Your task to perform on an android device: Open accessibility settings Image 0: 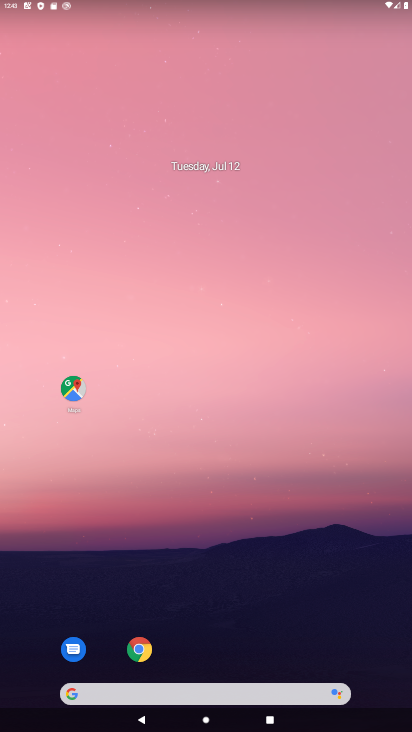
Step 0: drag from (204, 658) to (289, 58)
Your task to perform on an android device: Open accessibility settings Image 1: 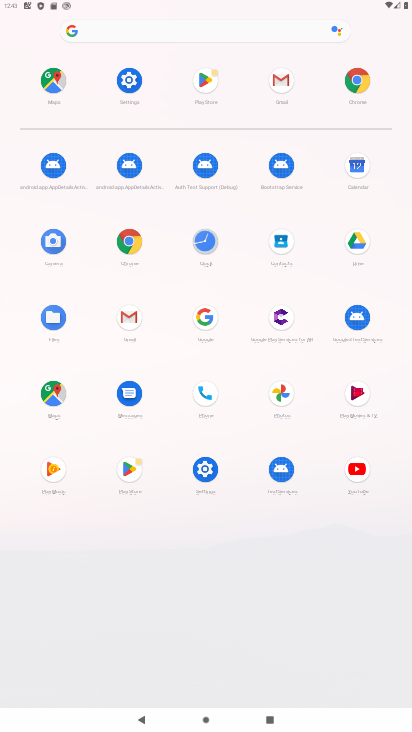
Step 1: click (135, 76)
Your task to perform on an android device: Open accessibility settings Image 2: 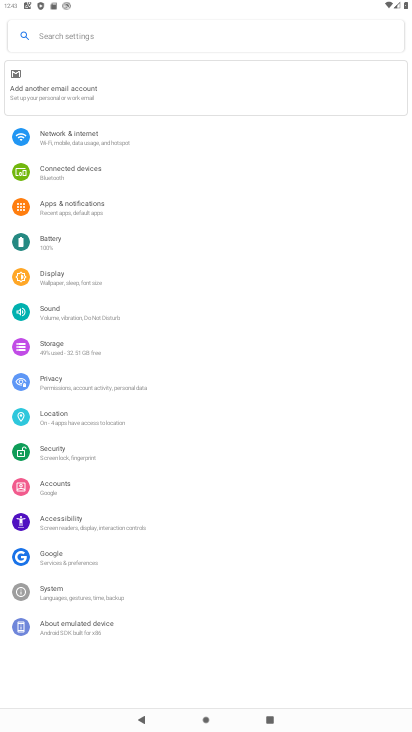
Step 2: click (75, 518)
Your task to perform on an android device: Open accessibility settings Image 3: 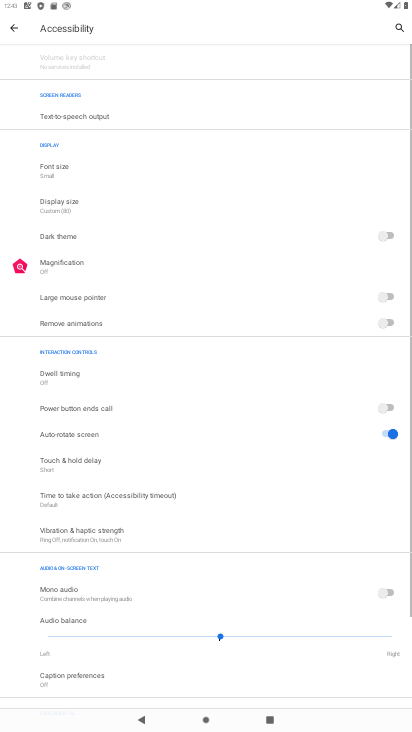
Step 3: task complete